Your task to perform on an android device: allow cookies in the chrome app Image 0: 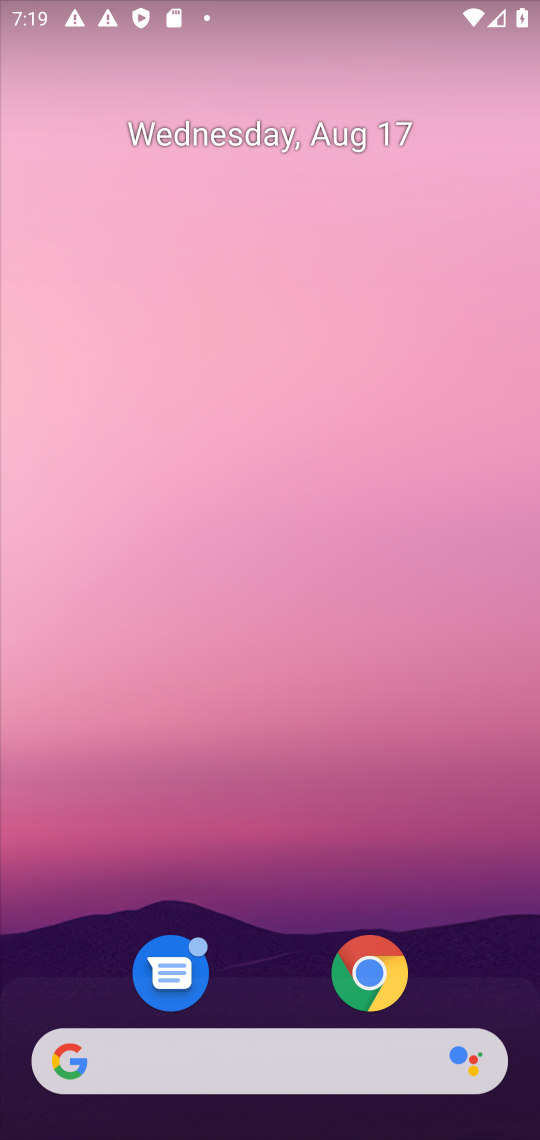
Step 0: click (375, 966)
Your task to perform on an android device: allow cookies in the chrome app Image 1: 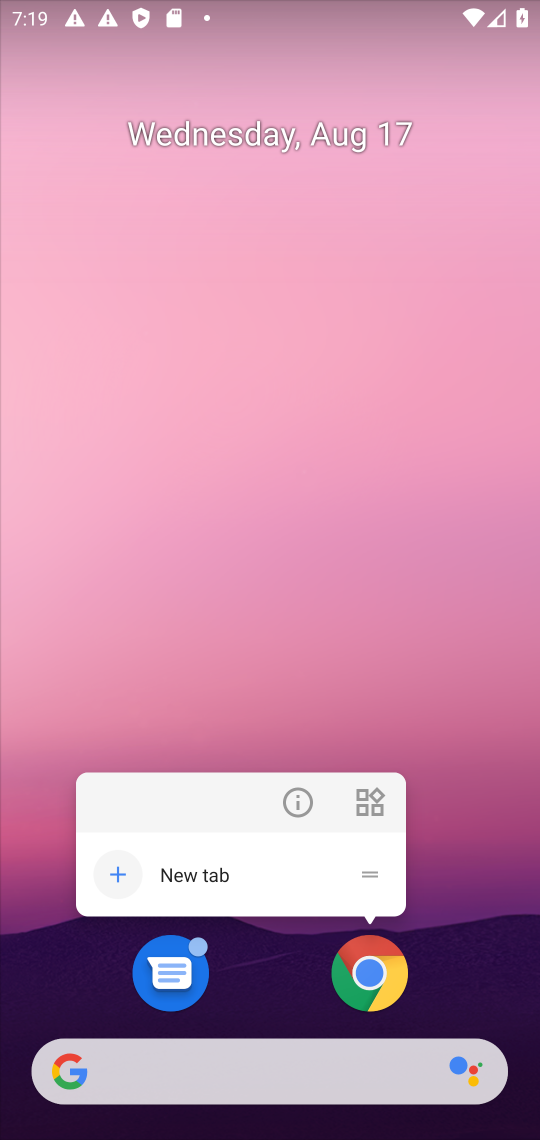
Step 1: click (370, 978)
Your task to perform on an android device: allow cookies in the chrome app Image 2: 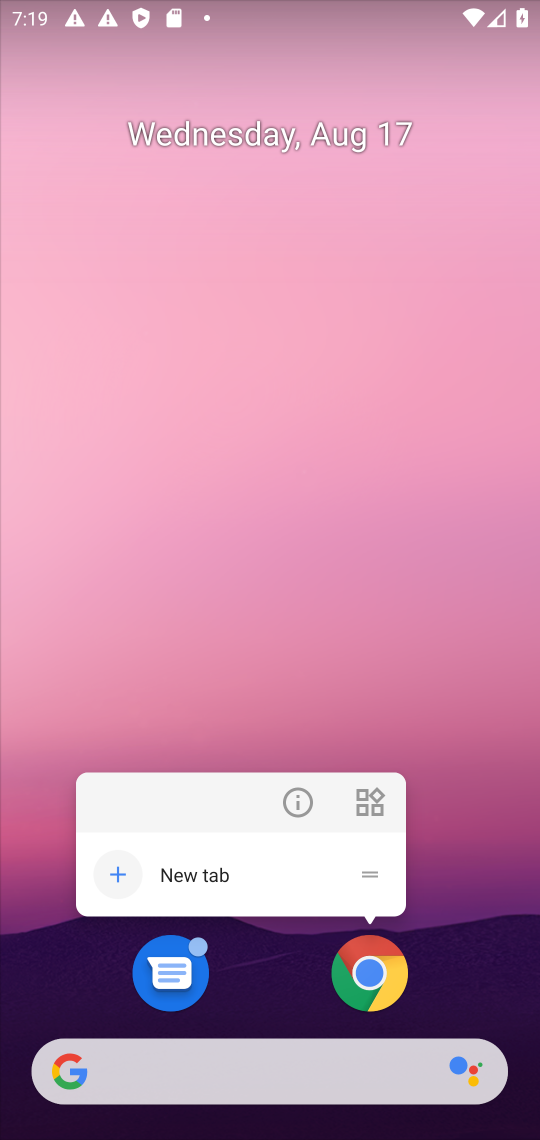
Step 2: click (369, 978)
Your task to perform on an android device: allow cookies in the chrome app Image 3: 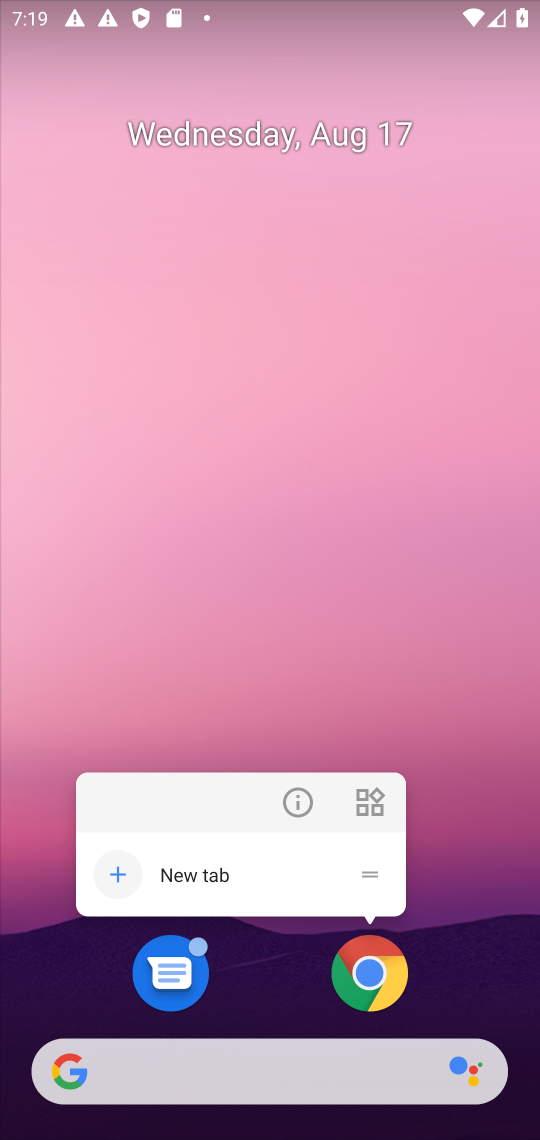
Step 3: click (369, 978)
Your task to perform on an android device: allow cookies in the chrome app Image 4: 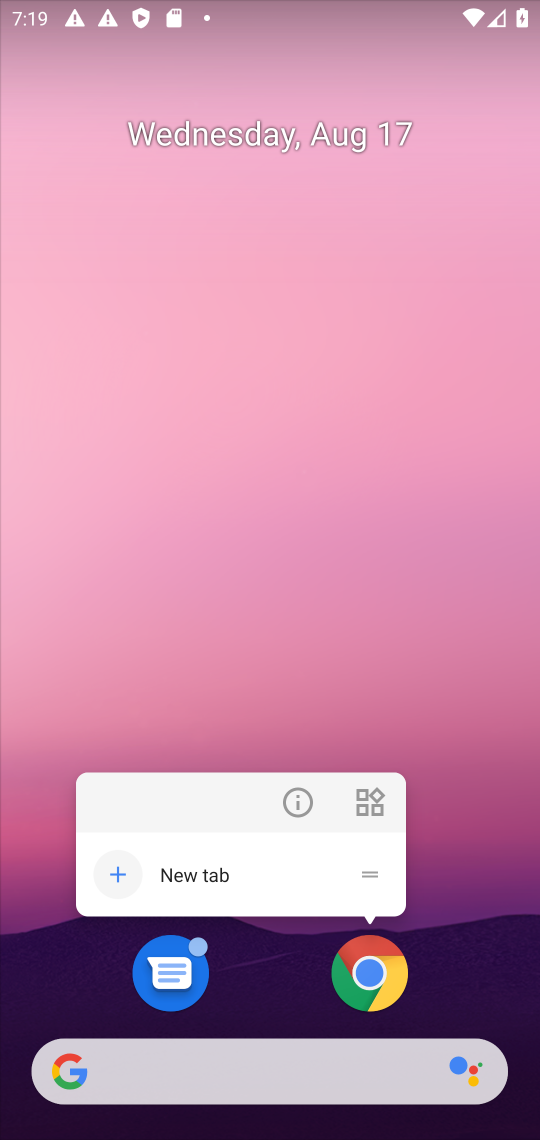
Step 4: click (375, 977)
Your task to perform on an android device: allow cookies in the chrome app Image 5: 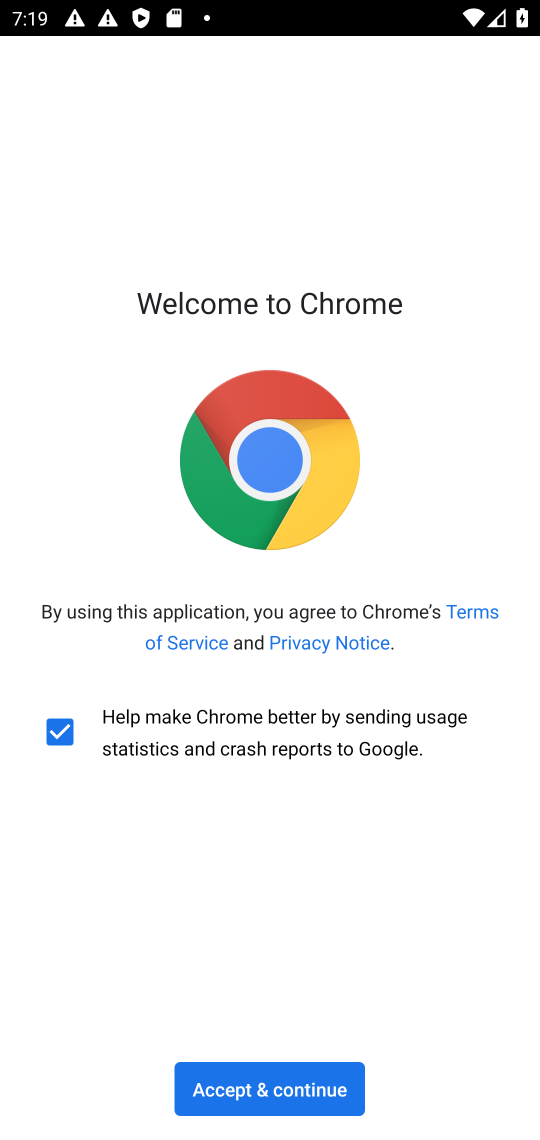
Step 5: click (311, 1090)
Your task to perform on an android device: allow cookies in the chrome app Image 6: 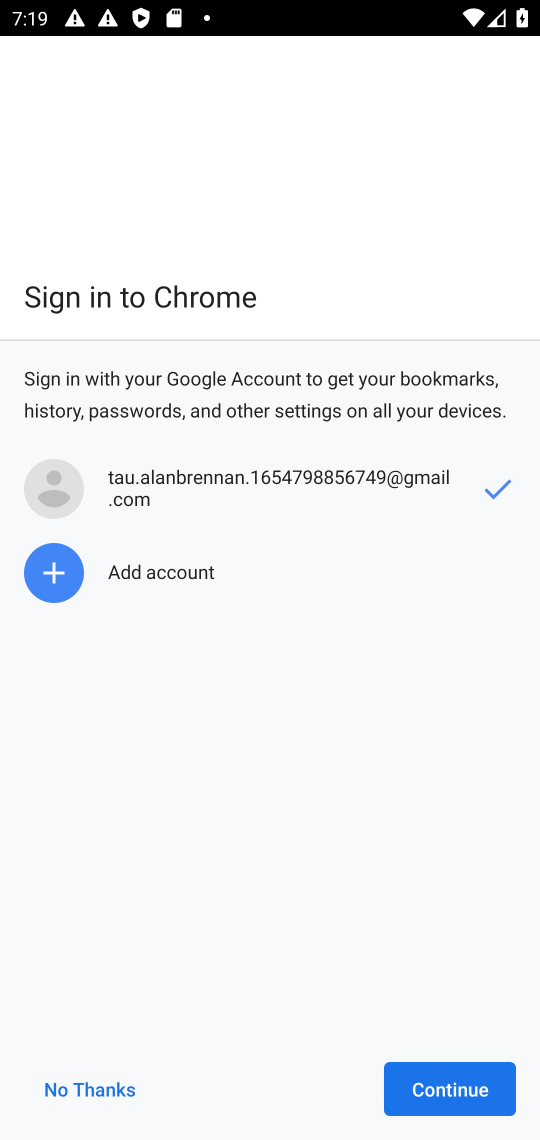
Step 6: click (465, 1092)
Your task to perform on an android device: allow cookies in the chrome app Image 7: 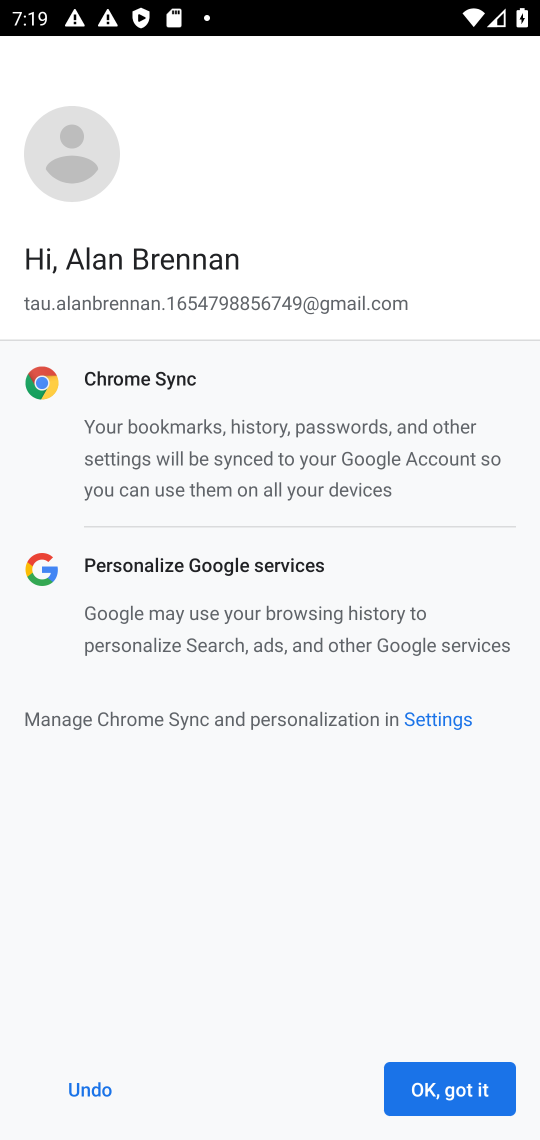
Step 7: click (465, 1092)
Your task to perform on an android device: allow cookies in the chrome app Image 8: 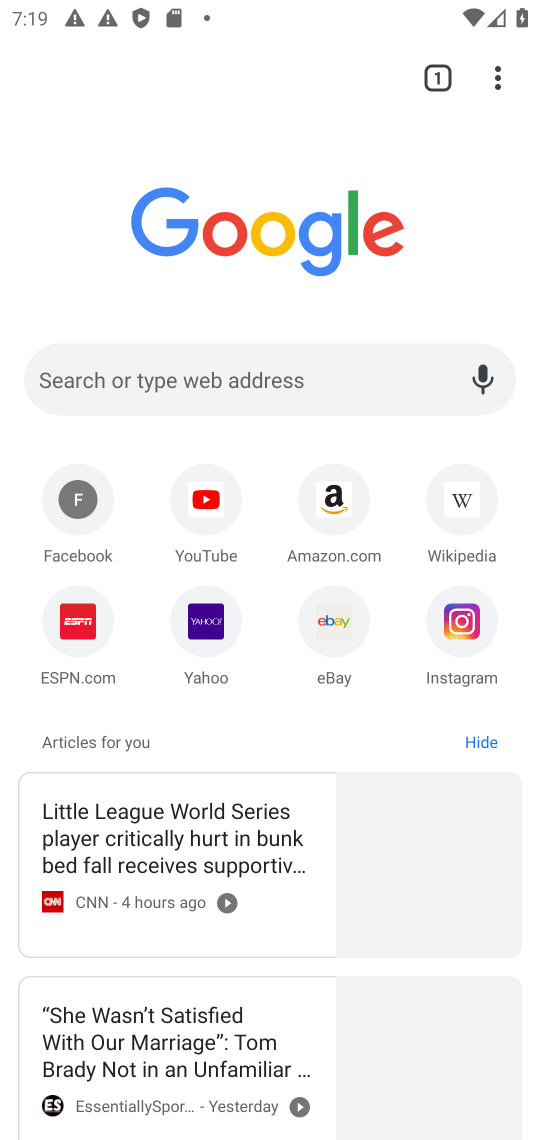
Step 8: drag from (508, 81) to (235, 661)
Your task to perform on an android device: allow cookies in the chrome app Image 9: 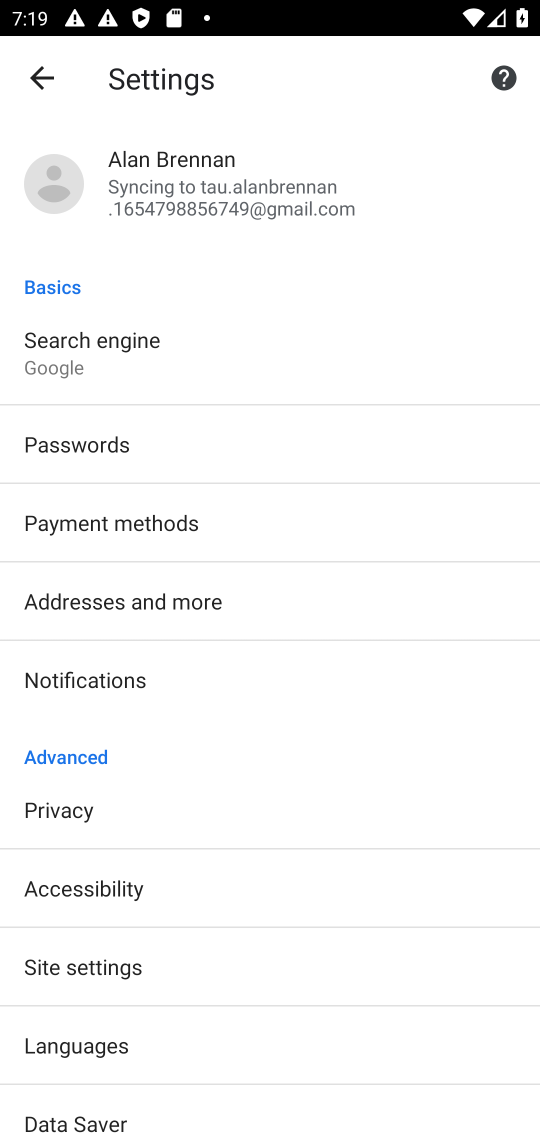
Step 9: click (140, 971)
Your task to perform on an android device: allow cookies in the chrome app Image 10: 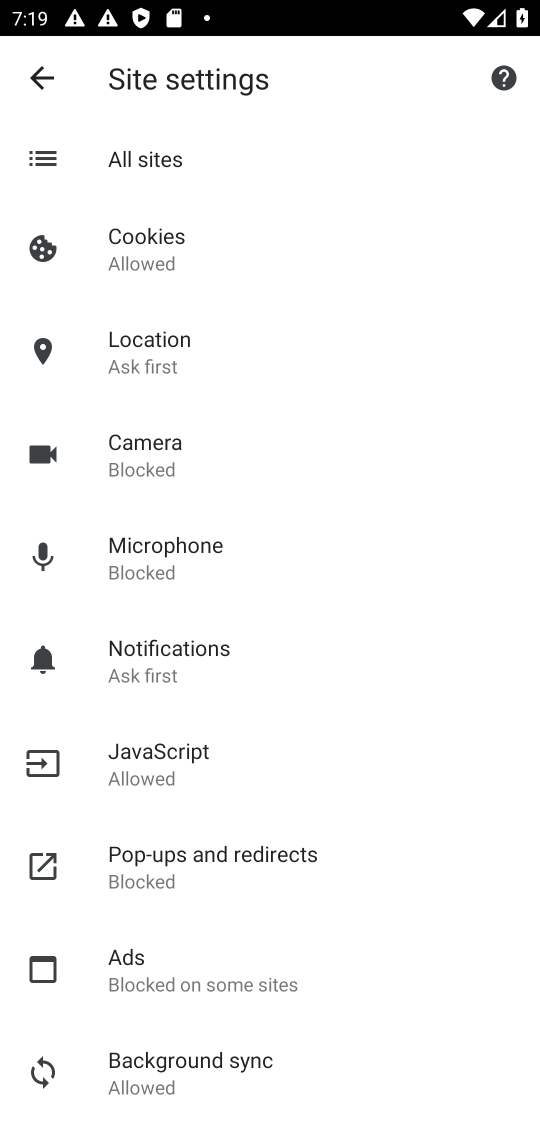
Step 10: click (171, 248)
Your task to perform on an android device: allow cookies in the chrome app Image 11: 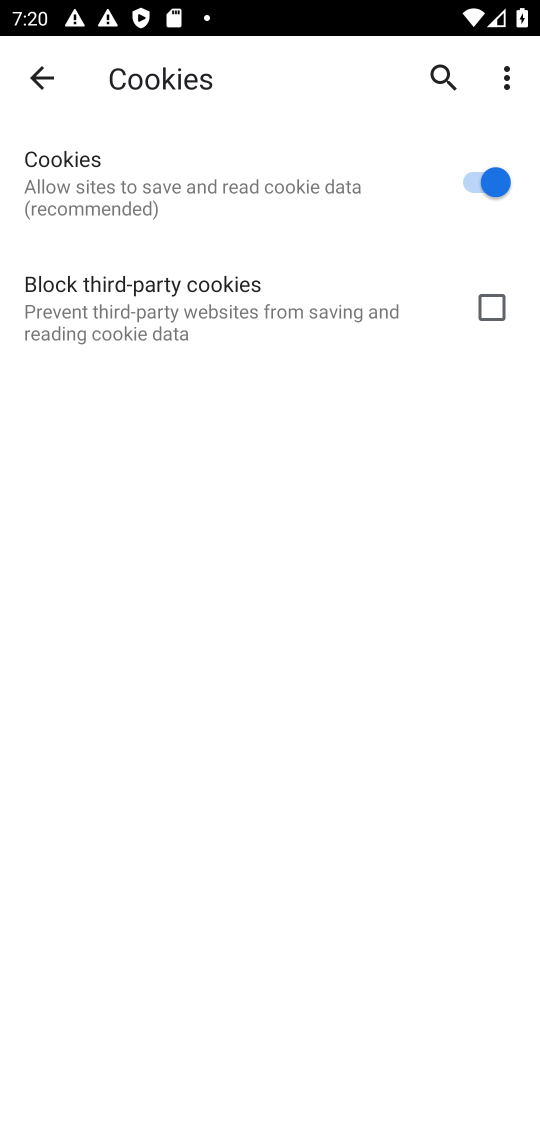
Step 11: task complete